Your task to perform on an android device: add a contact in the contacts app Image 0: 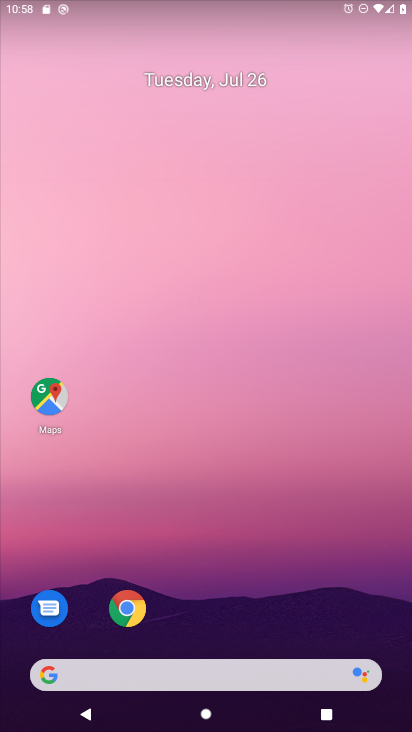
Step 0: drag from (288, 610) to (243, 100)
Your task to perform on an android device: add a contact in the contacts app Image 1: 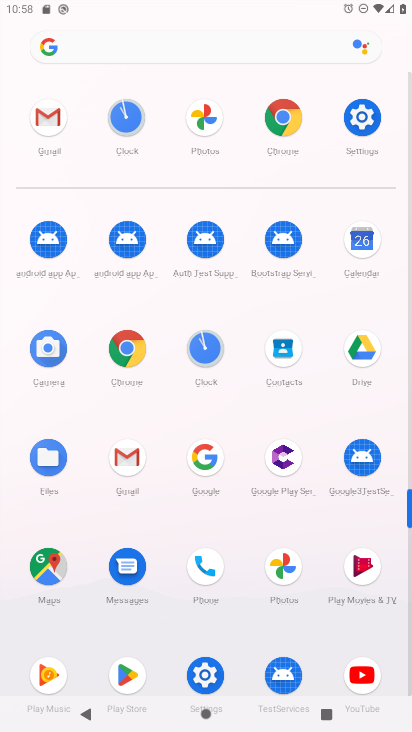
Step 1: click (284, 354)
Your task to perform on an android device: add a contact in the contacts app Image 2: 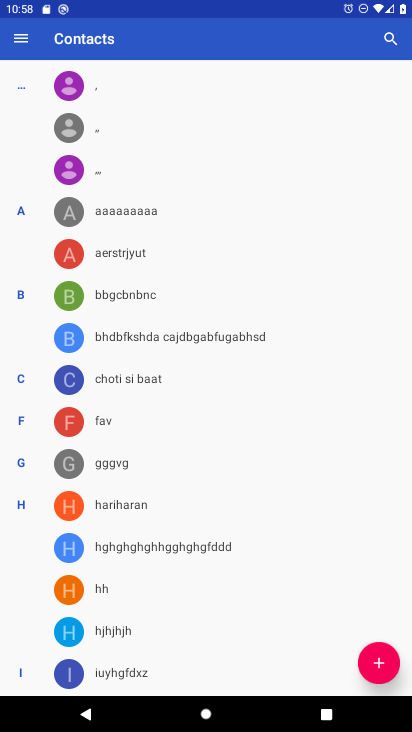
Step 2: click (378, 657)
Your task to perform on an android device: add a contact in the contacts app Image 3: 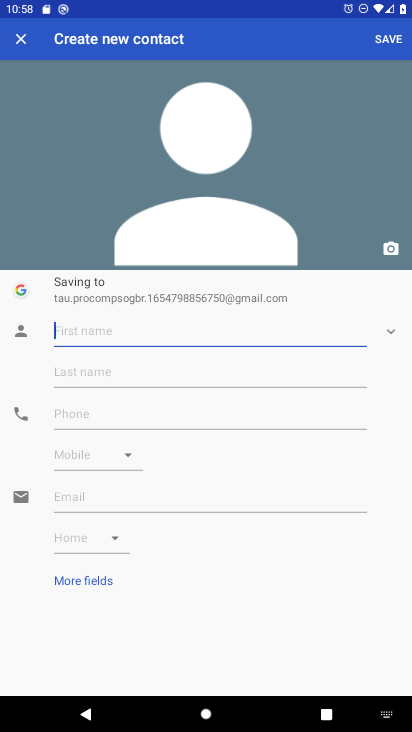
Step 3: type "hop"
Your task to perform on an android device: add a contact in the contacts app Image 4: 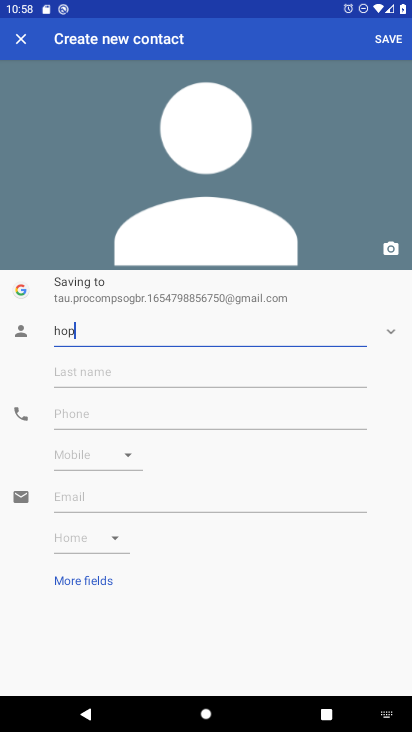
Step 4: click (384, 43)
Your task to perform on an android device: add a contact in the contacts app Image 5: 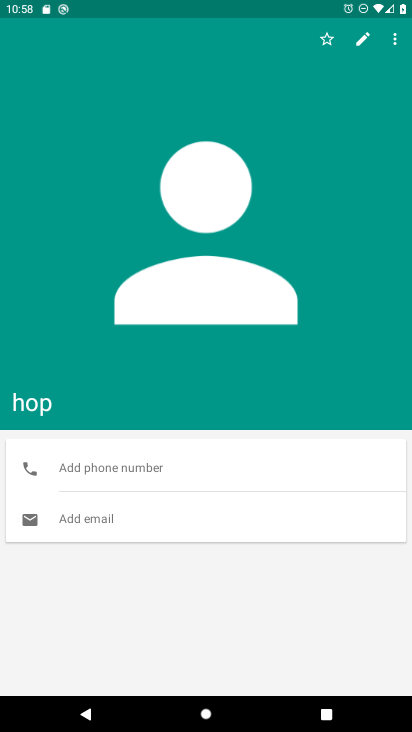
Step 5: task complete